Your task to perform on an android device: clear all cookies in the chrome app Image 0: 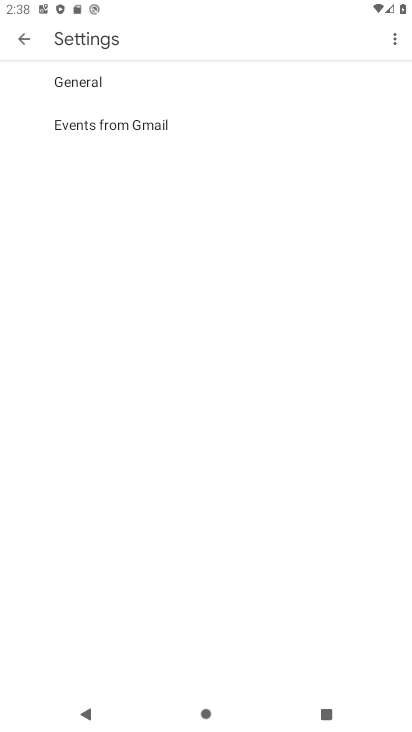
Step 0: drag from (204, 658) to (329, 519)
Your task to perform on an android device: clear all cookies in the chrome app Image 1: 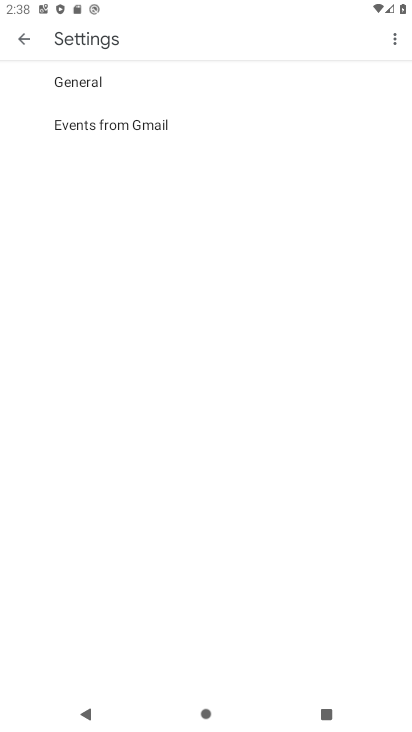
Step 1: press home button
Your task to perform on an android device: clear all cookies in the chrome app Image 2: 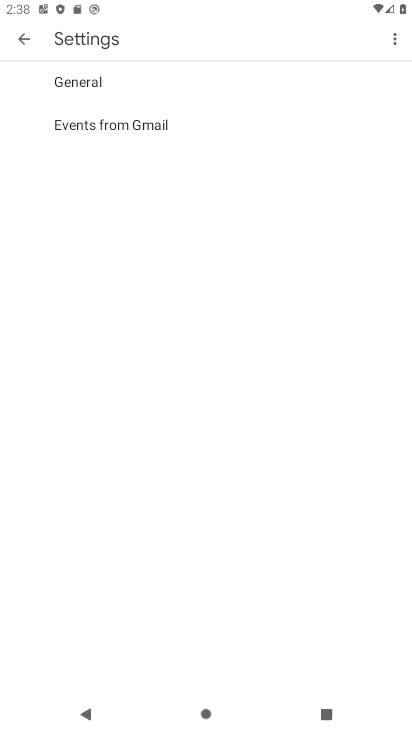
Step 2: drag from (329, 519) to (405, 492)
Your task to perform on an android device: clear all cookies in the chrome app Image 3: 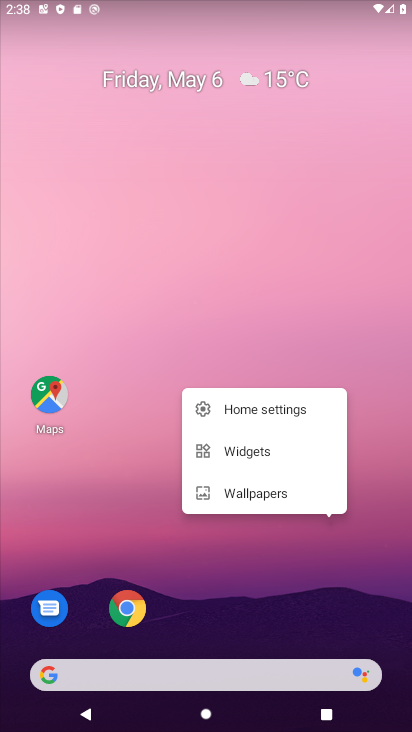
Step 3: click (131, 604)
Your task to perform on an android device: clear all cookies in the chrome app Image 4: 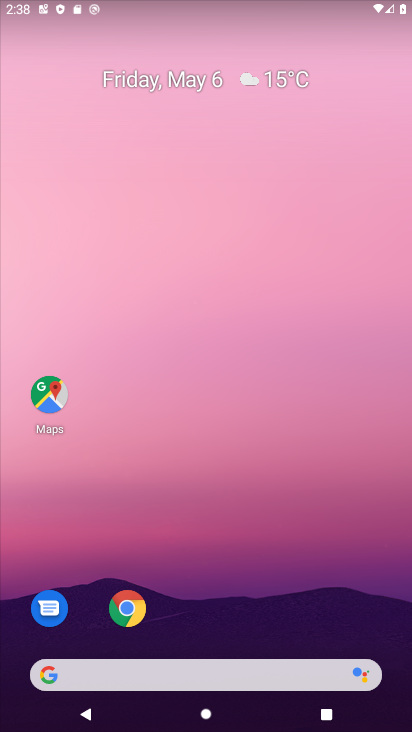
Step 4: click (115, 607)
Your task to perform on an android device: clear all cookies in the chrome app Image 5: 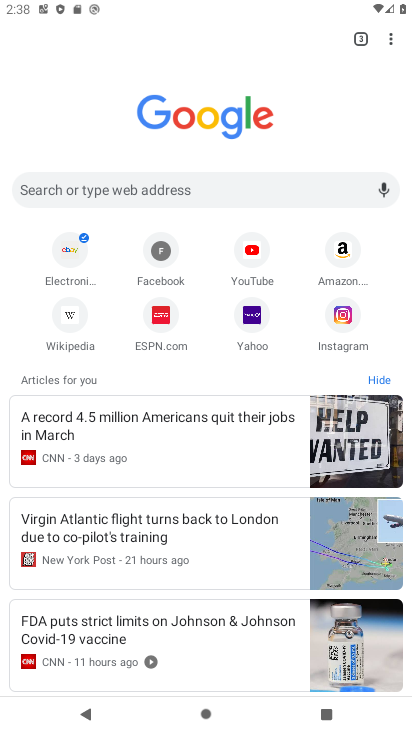
Step 5: click (392, 35)
Your task to perform on an android device: clear all cookies in the chrome app Image 6: 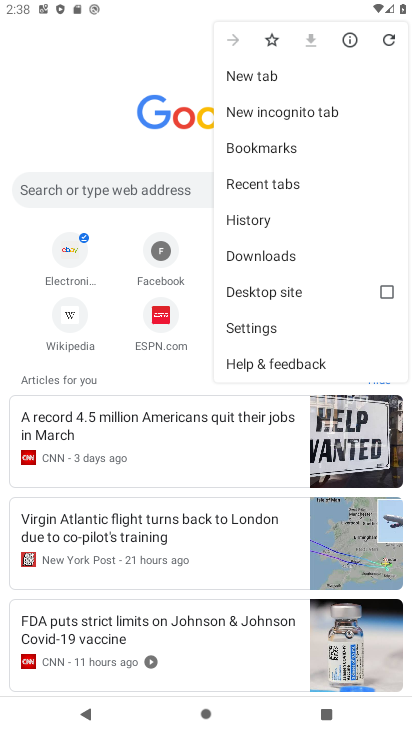
Step 6: click (258, 222)
Your task to perform on an android device: clear all cookies in the chrome app Image 7: 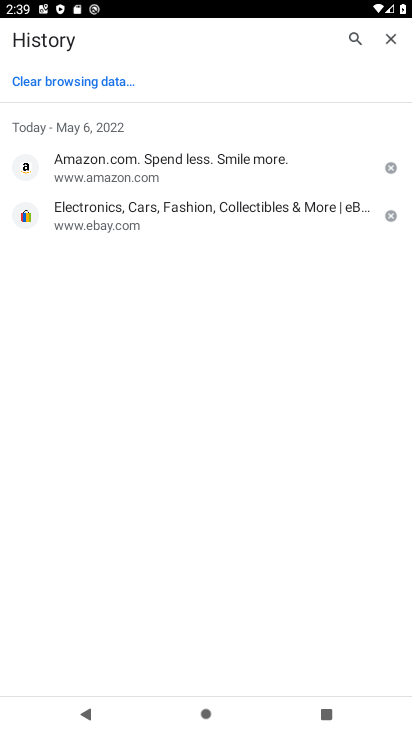
Step 7: click (100, 79)
Your task to perform on an android device: clear all cookies in the chrome app Image 8: 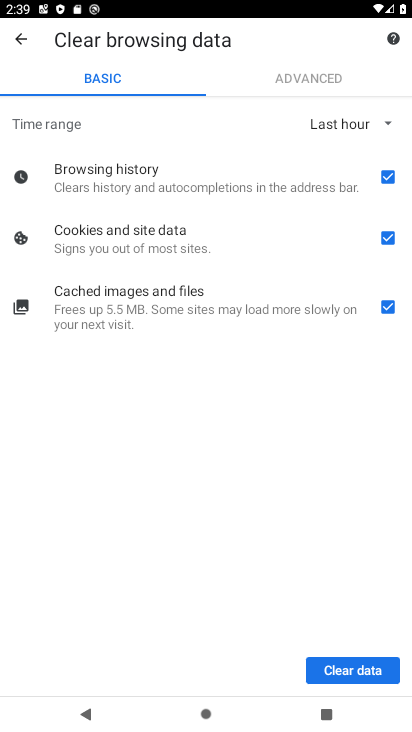
Step 8: click (391, 174)
Your task to perform on an android device: clear all cookies in the chrome app Image 9: 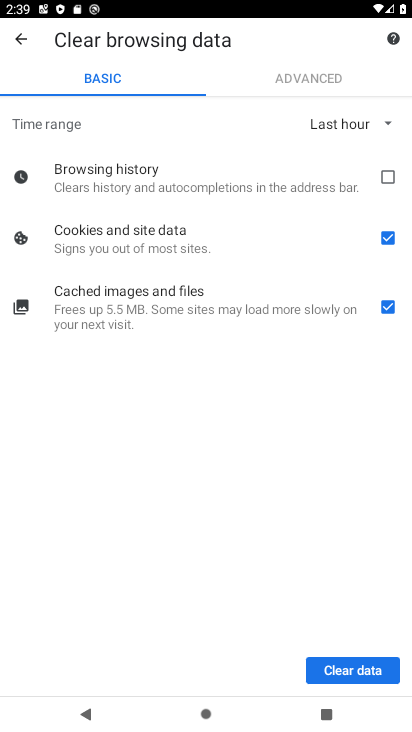
Step 9: click (387, 300)
Your task to perform on an android device: clear all cookies in the chrome app Image 10: 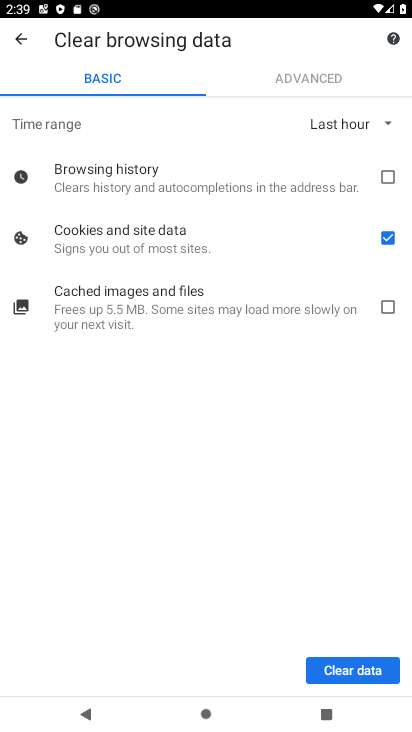
Step 10: click (349, 674)
Your task to perform on an android device: clear all cookies in the chrome app Image 11: 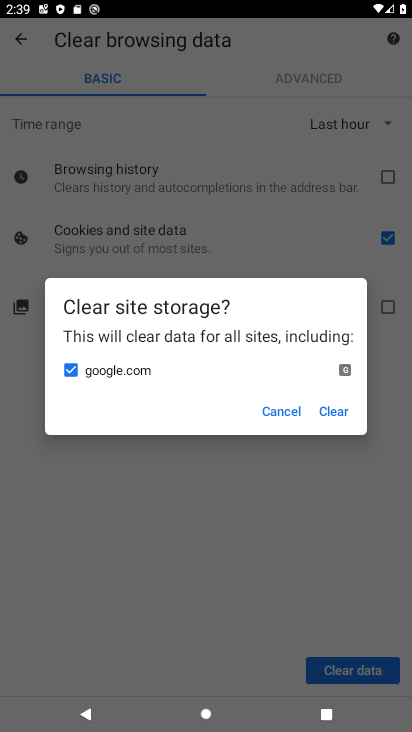
Step 11: click (333, 412)
Your task to perform on an android device: clear all cookies in the chrome app Image 12: 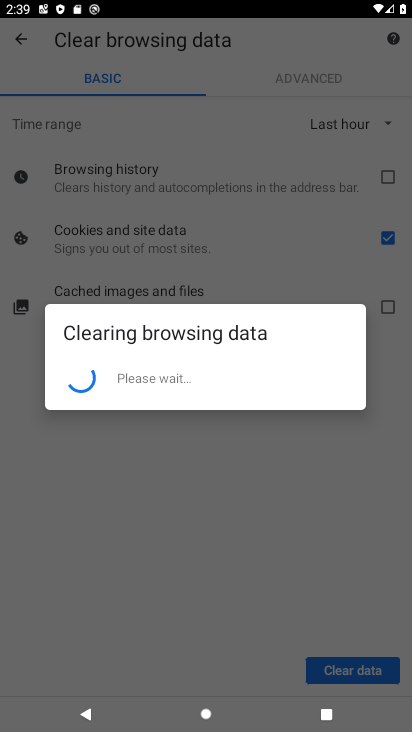
Step 12: task complete